Your task to perform on an android device: check battery use Image 0: 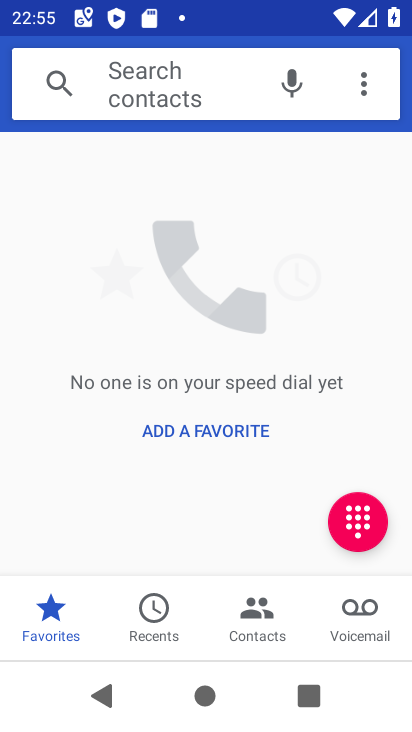
Step 0: press home button
Your task to perform on an android device: check battery use Image 1: 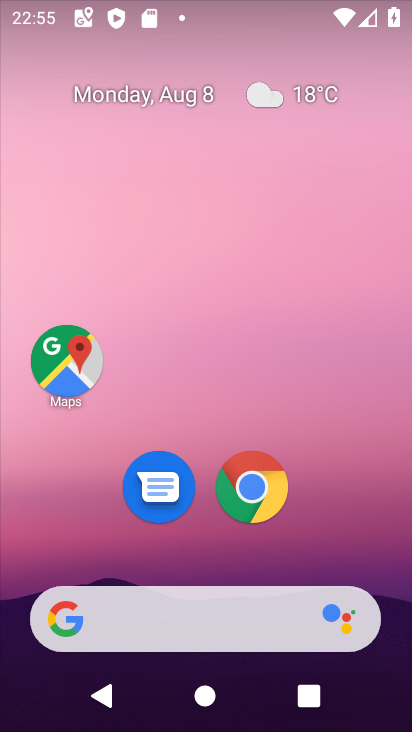
Step 1: drag from (200, 533) to (233, 53)
Your task to perform on an android device: check battery use Image 2: 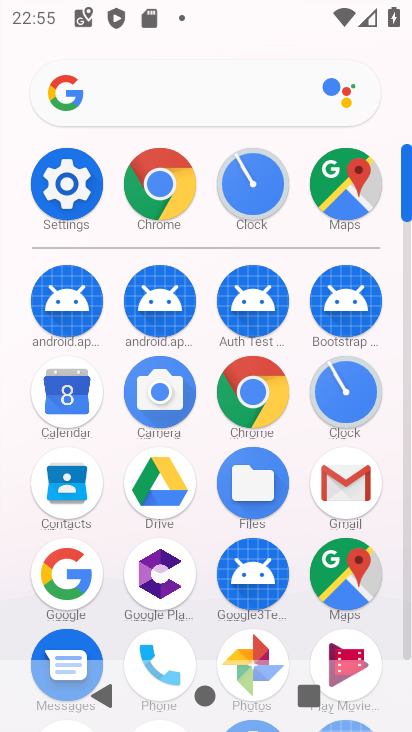
Step 2: click (73, 194)
Your task to perform on an android device: check battery use Image 3: 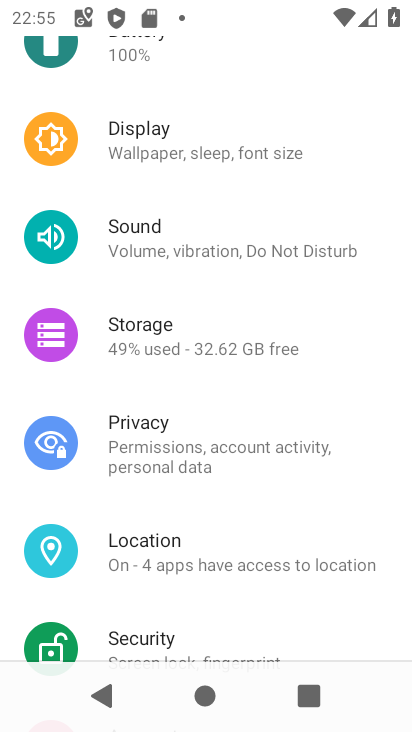
Step 3: drag from (206, 112) to (195, 401)
Your task to perform on an android device: check battery use Image 4: 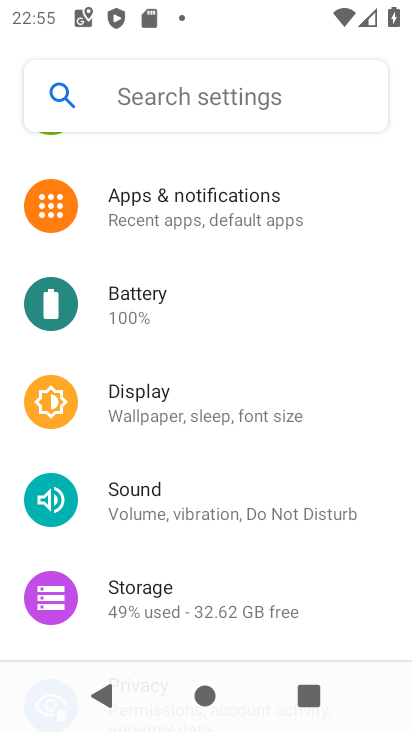
Step 4: click (135, 301)
Your task to perform on an android device: check battery use Image 5: 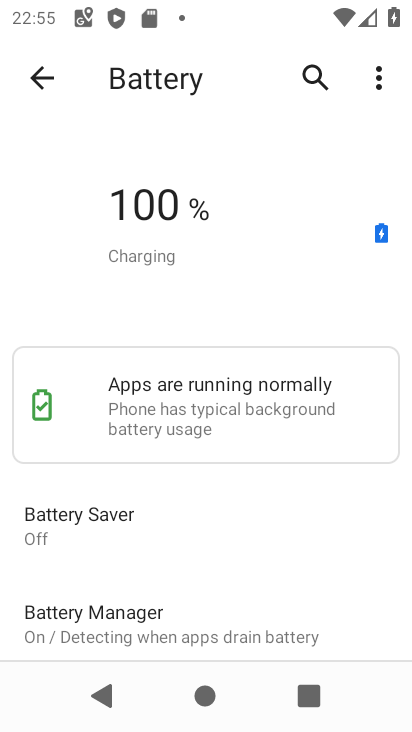
Step 5: task complete